Your task to perform on an android device: turn on translation in the chrome app Image 0: 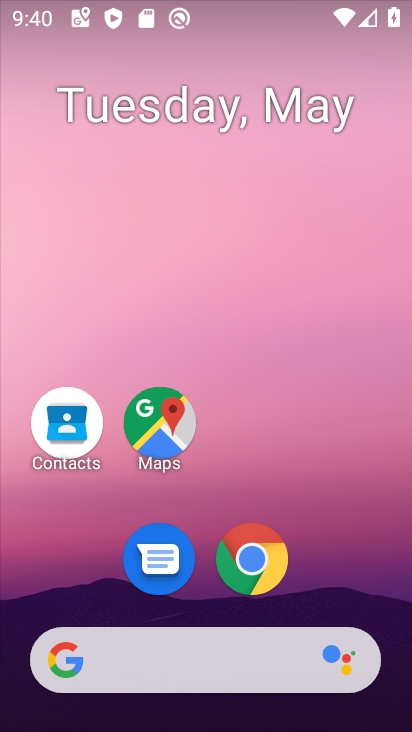
Step 0: click (261, 552)
Your task to perform on an android device: turn on translation in the chrome app Image 1: 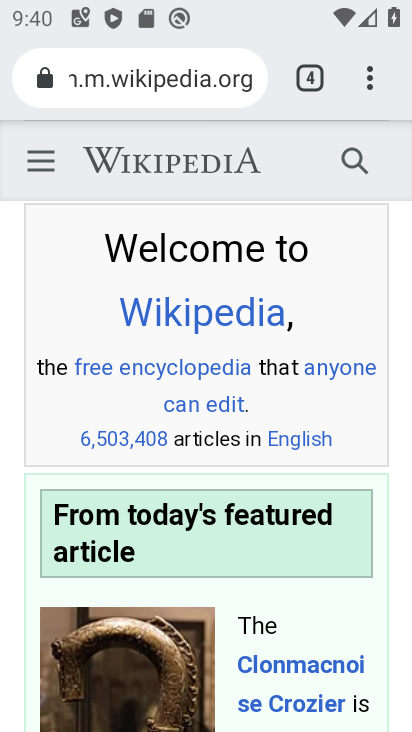
Step 1: click (367, 71)
Your task to perform on an android device: turn on translation in the chrome app Image 2: 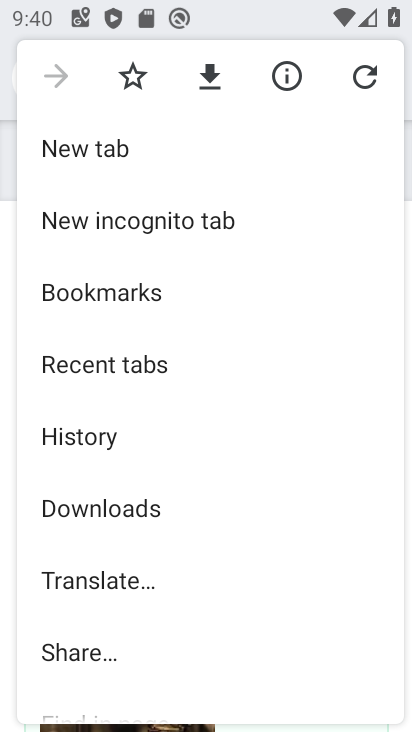
Step 2: drag from (140, 599) to (142, 491)
Your task to perform on an android device: turn on translation in the chrome app Image 3: 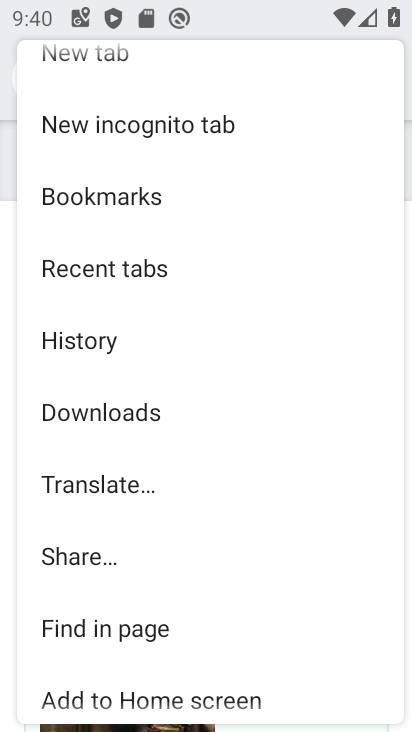
Step 3: drag from (258, 674) to (325, 234)
Your task to perform on an android device: turn on translation in the chrome app Image 4: 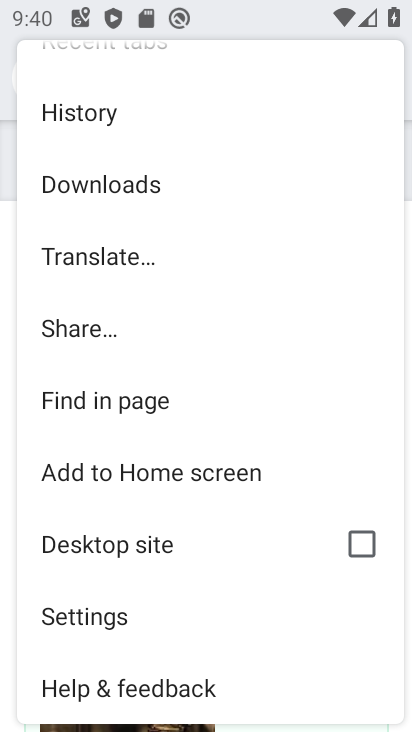
Step 4: click (119, 625)
Your task to perform on an android device: turn on translation in the chrome app Image 5: 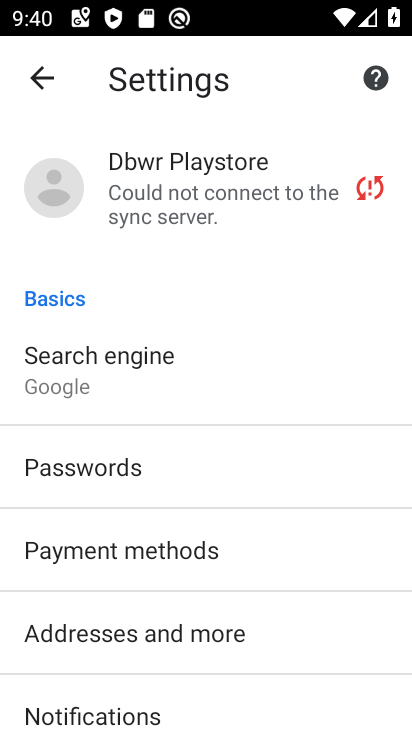
Step 5: task complete